Your task to perform on an android device: add a contact Image 0: 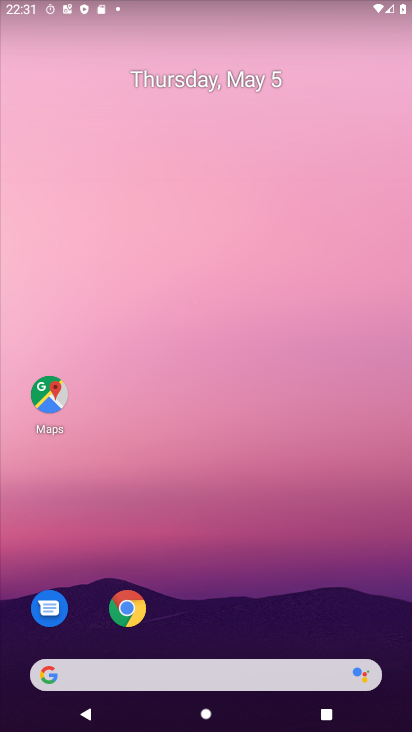
Step 0: drag from (318, 652) to (339, 1)
Your task to perform on an android device: add a contact Image 1: 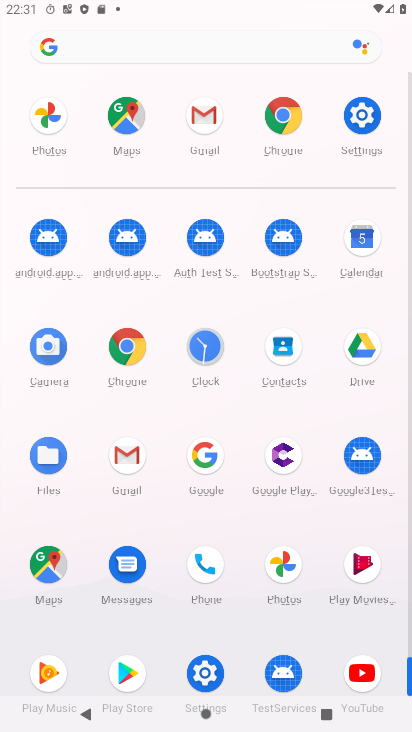
Step 1: click (293, 350)
Your task to perform on an android device: add a contact Image 2: 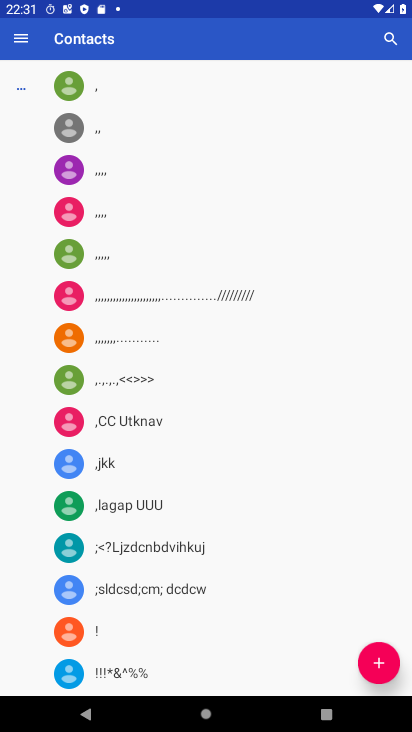
Step 2: click (381, 662)
Your task to perform on an android device: add a contact Image 3: 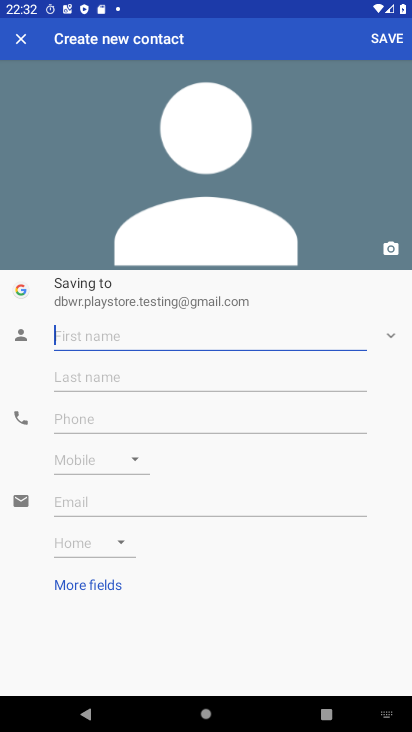
Step 3: type "yfgjjhhjjjkjfcfe"
Your task to perform on an android device: add a contact Image 4: 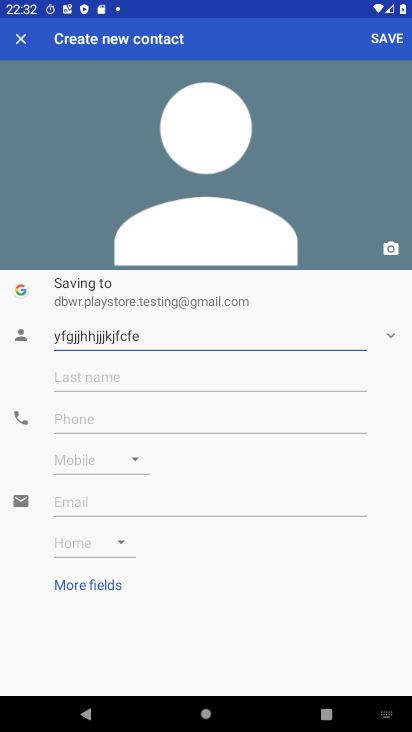
Step 4: click (241, 416)
Your task to perform on an android device: add a contact Image 5: 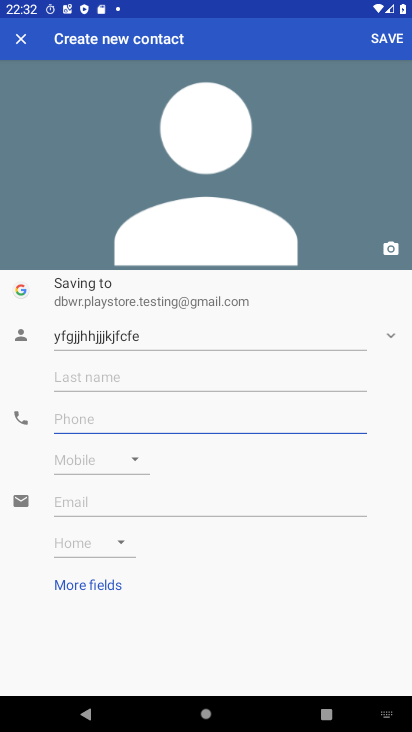
Step 5: type "8786788909"
Your task to perform on an android device: add a contact Image 6: 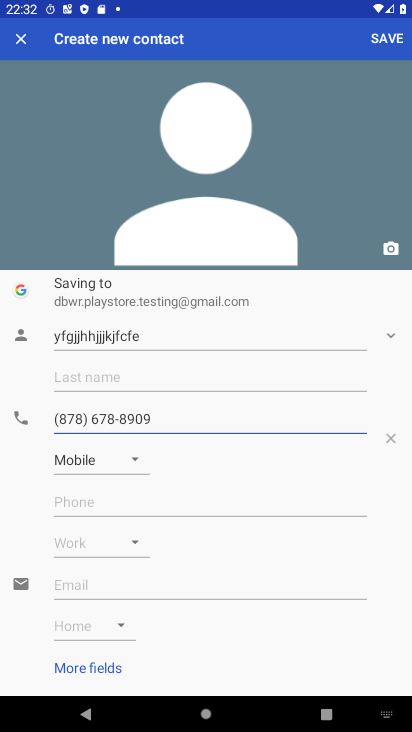
Step 6: click (383, 39)
Your task to perform on an android device: add a contact Image 7: 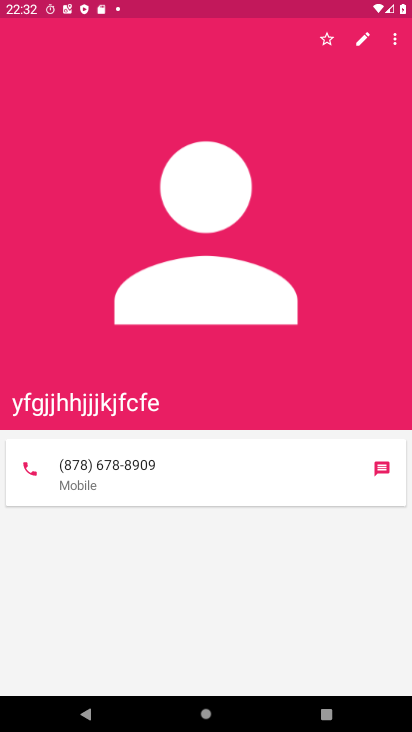
Step 7: task complete